Your task to perform on an android device: Open Youtube and go to the subscriptions tab Image 0: 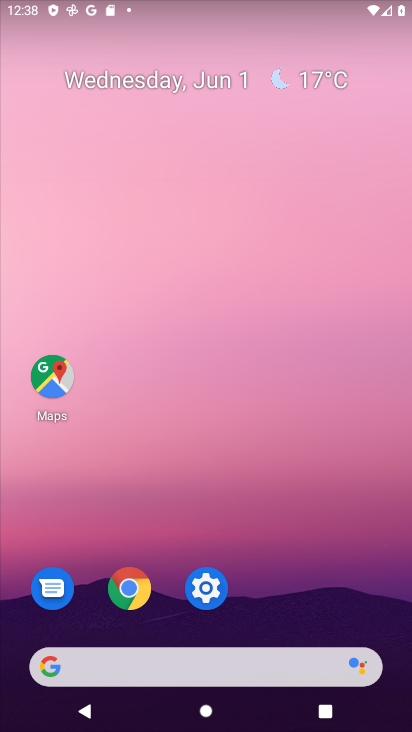
Step 0: press home button
Your task to perform on an android device: Open Youtube and go to the subscriptions tab Image 1: 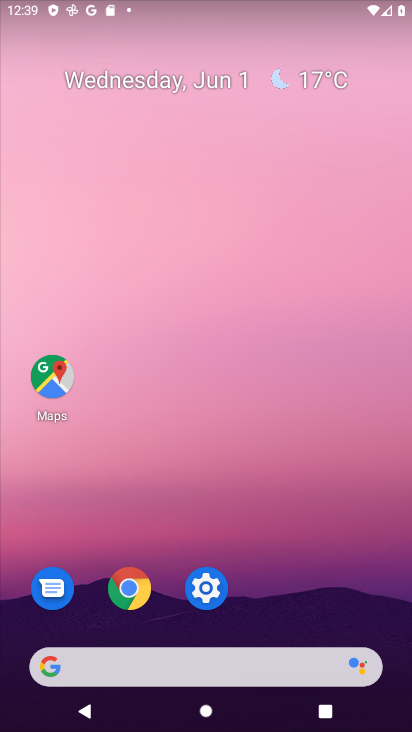
Step 1: drag from (273, 695) to (254, 248)
Your task to perform on an android device: Open Youtube and go to the subscriptions tab Image 2: 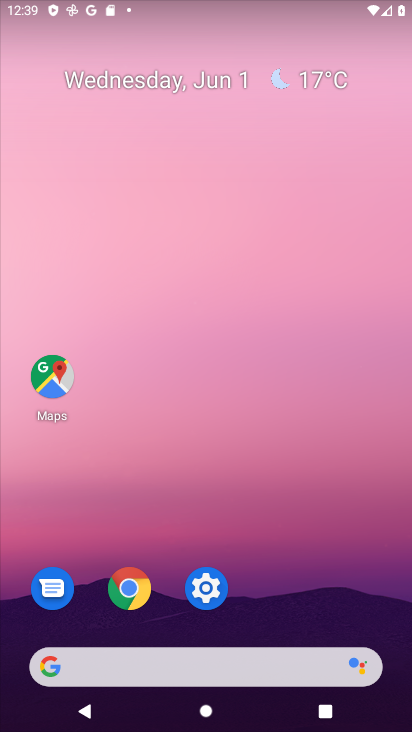
Step 2: drag from (258, 690) to (259, 310)
Your task to perform on an android device: Open Youtube and go to the subscriptions tab Image 3: 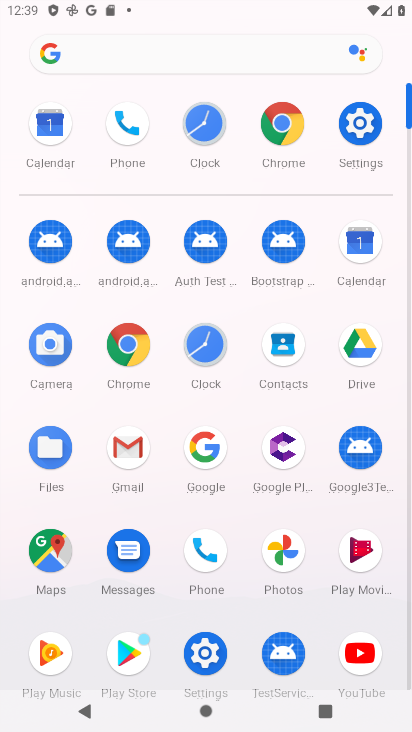
Step 3: click (363, 656)
Your task to perform on an android device: Open Youtube and go to the subscriptions tab Image 4: 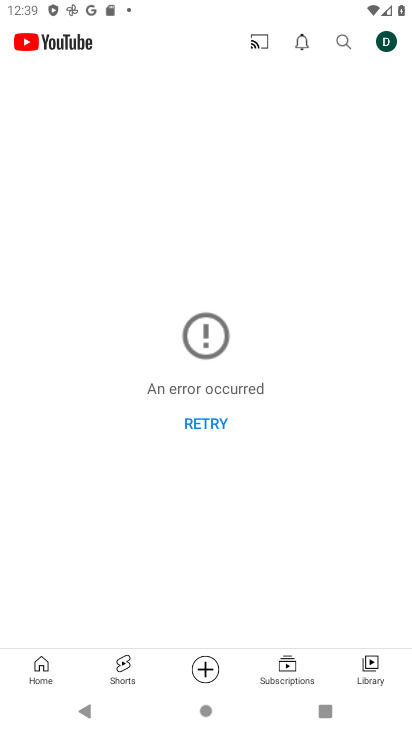
Step 4: click (370, 665)
Your task to perform on an android device: Open Youtube and go to the subscriptions tab Image 5: 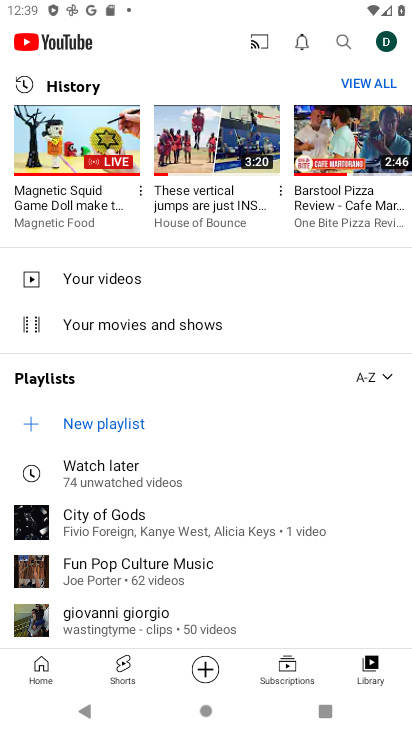
Step 5: click (278, 665)
Your task to perform on an android device: Open Youtube and go to the subscriptions tab Image 6: 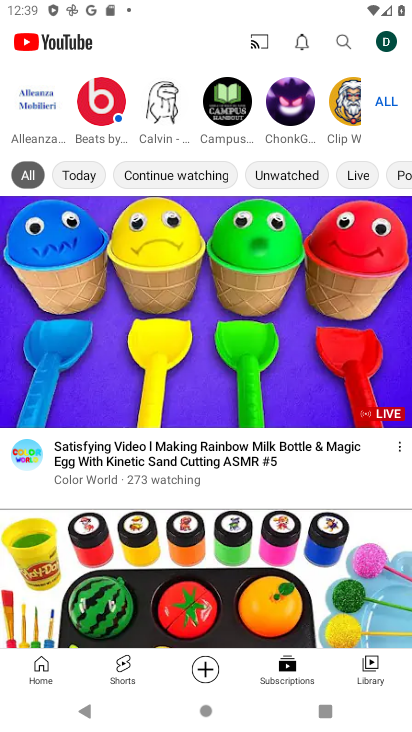
Step 6: task complete